Your task to perform on an android device: Open the calendar app, open the side menu, and click the "Day" option Image 0: 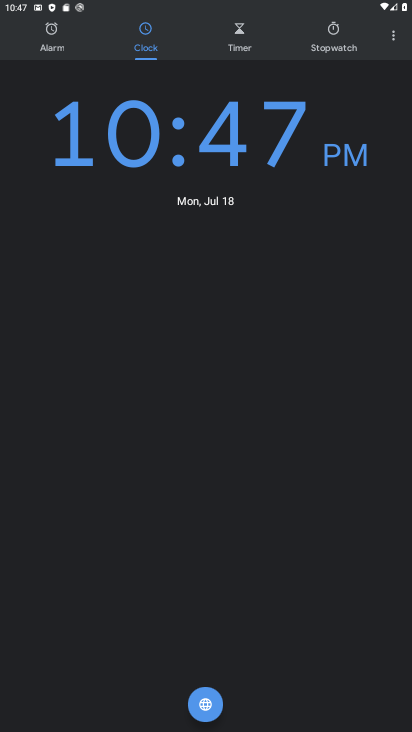
Step 0: press home button
Your task to perform on an android device: Open the calendar app, open the side menu, and click the "Day" option Image 1: 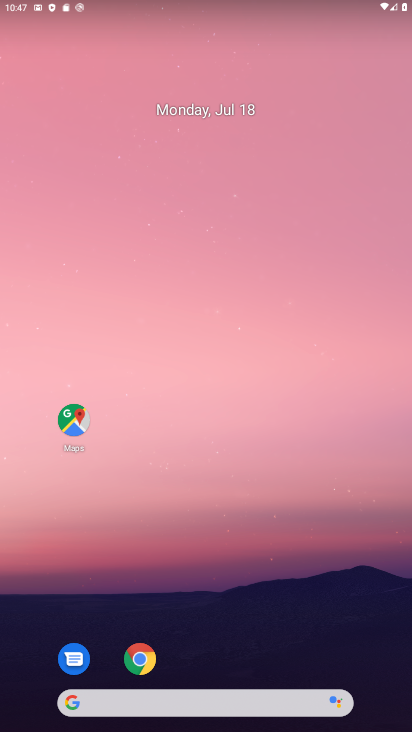
Step 1: drag from (255, 531) to (272, 247)
Your task to perform on an android device: Open the calendar app, open the side menu, and click the "Day" option Image 2: 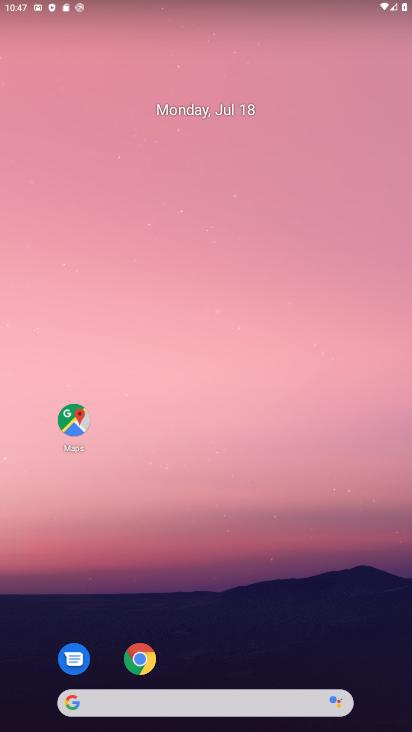
Step 2: drag from (213, 671) to (237, 217)
Your task to perform on an android device: Open the calendar app, open the side menu, and click the "Day" option Image 3: 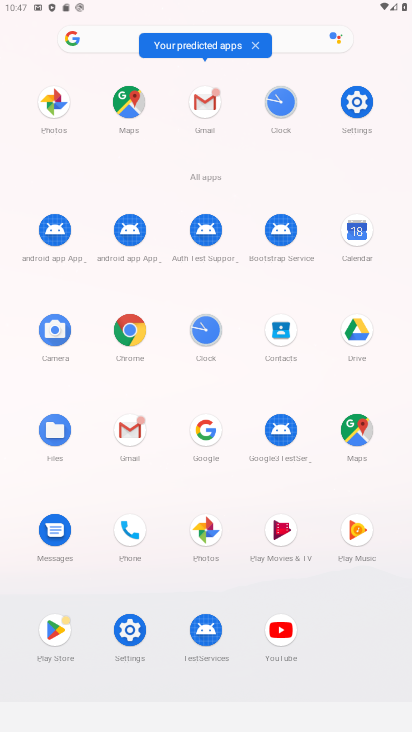
Step 3: click (350, 233)
Your task to perform on an android device: Open the calendar app, open the side menu, and click the "Day" option Image 4: 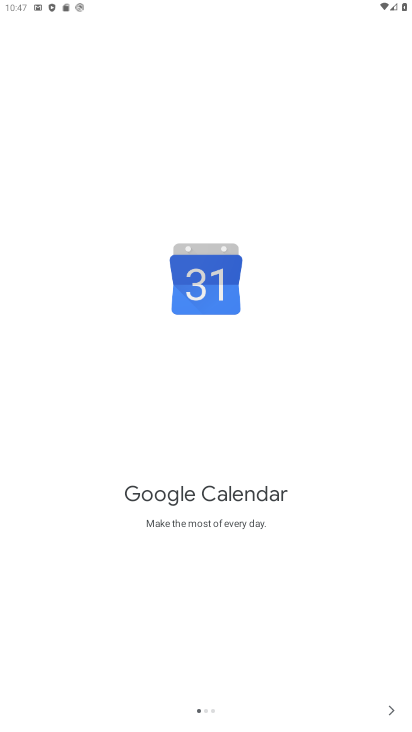
Step 4: click (395, 714)
Your task to perform on an android device: Open the calendar app, open the side menu, and click the "Day" option Image 5: 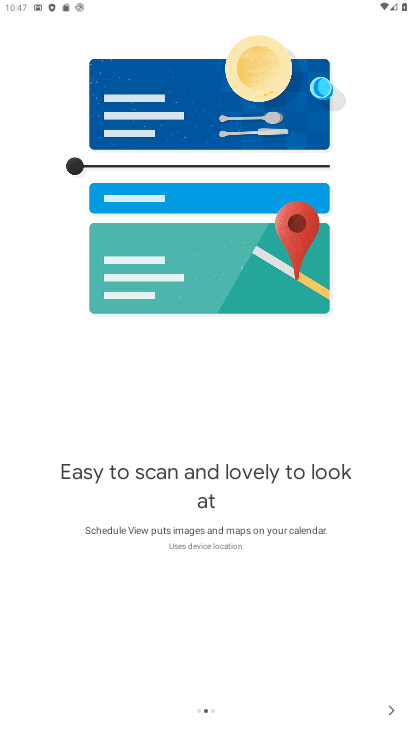
Step 5: click (395, 714)
Your task to perform on an android device: Open the calendar app, open the side menu, and click the "Day" option Image 6: 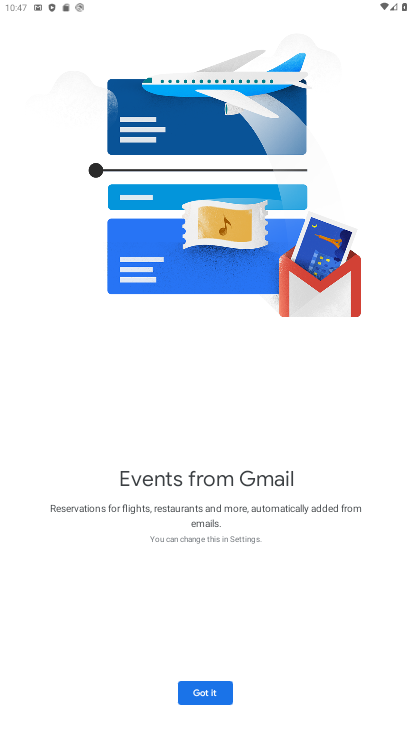
Step 6: click (222, 683)
Your task to perform on an android device: Open the calendar app, open the side menu, and click the "Day" option Image 7: 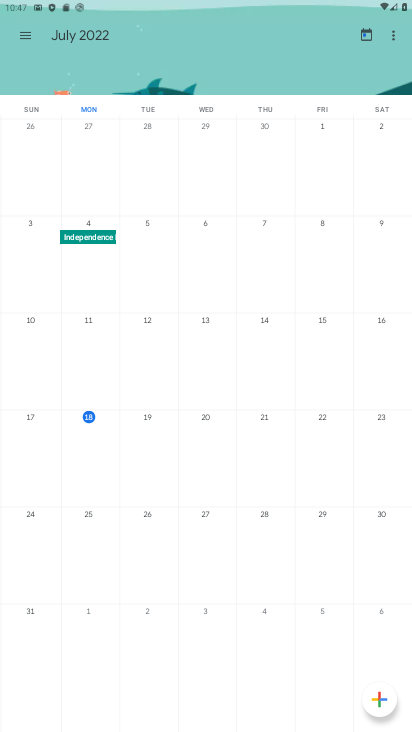
Step 7: click (31, 31)
Your task to perform on an android device: Open the calendar app, open the side menu, and click the "Day" option Image 8: 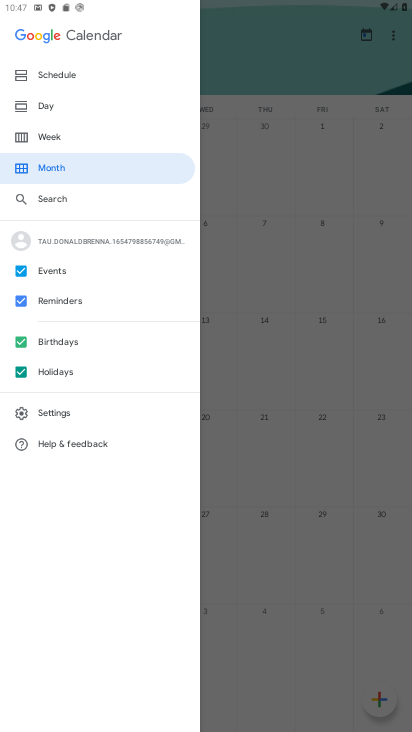
Step 8: click (71, 106)
Your task to perform on an android device: Open the calendar app, open the side menu, and click the "Day" option Image 9: 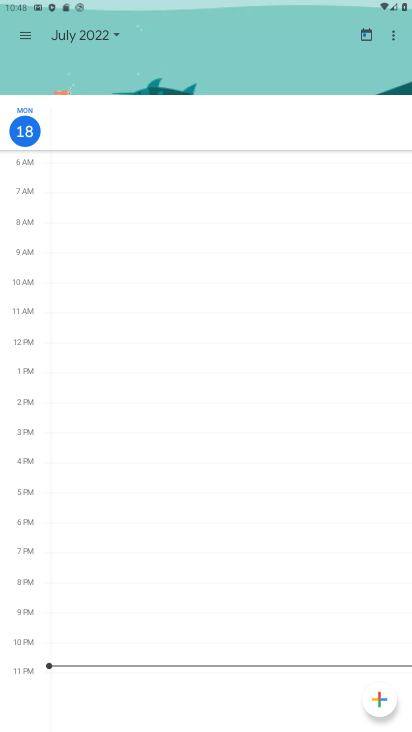
Step 9: task complete